Your task to perform on an android device: Go to display settings Image 0: 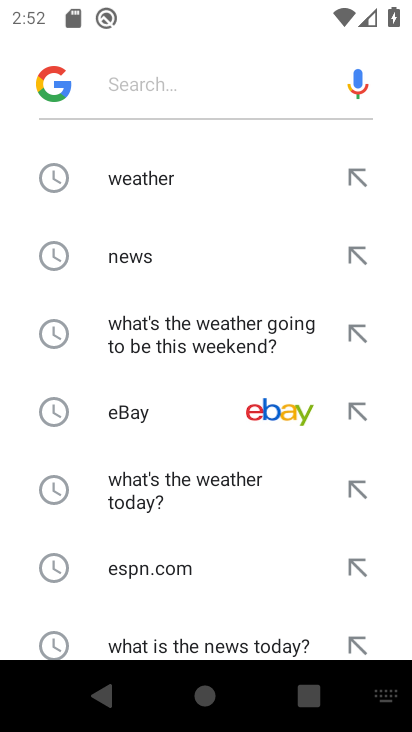
Step 0: press home button
Your task to perform on an android device: Go to display settings Image 1: 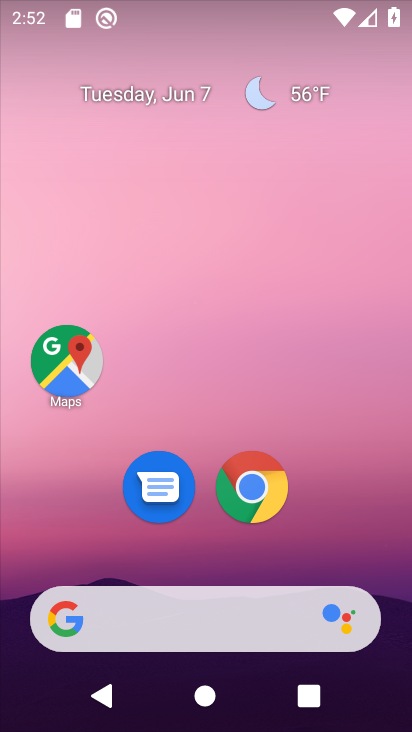
Step 1: drag from (377, 556) to (286, 151)
Your task to perform on an android device: Go to display settings Image 2: 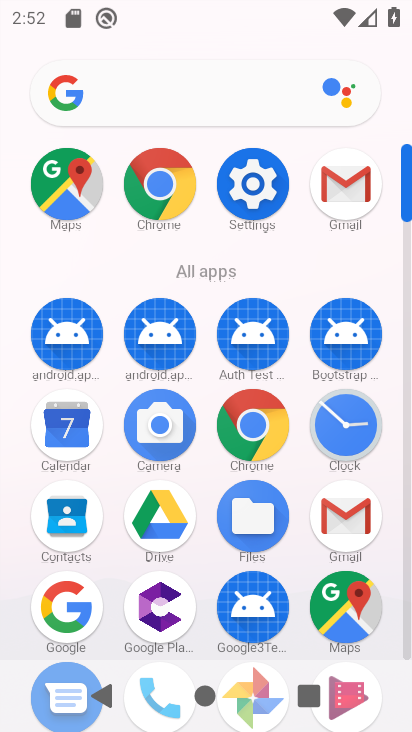
Step 2: click (263, 200)
Your task to perform on an android device: Go to display settings Image 3: 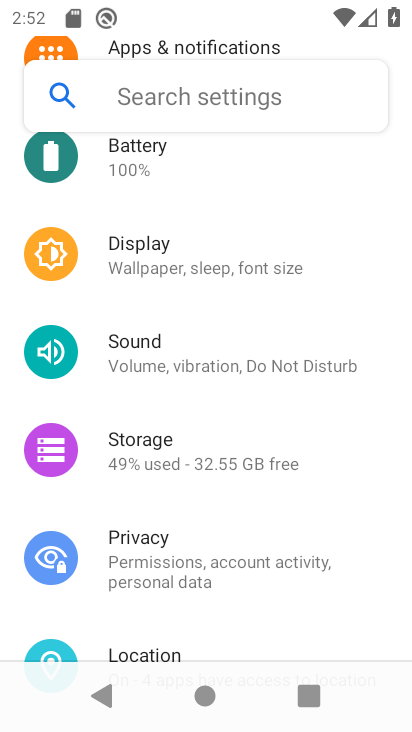
Step 3: click (211, 273)
Your task to perform on an android device: Go to display settings Image 4: 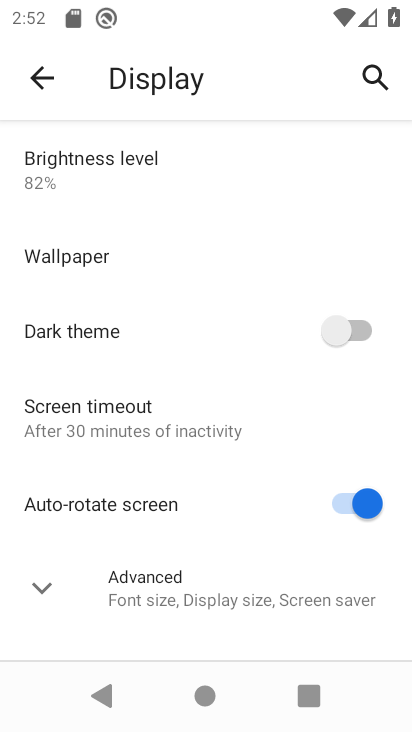
Step 4: task complete